Your task to perform on an android device: turn on showing notifications on the lock screen Image 0: 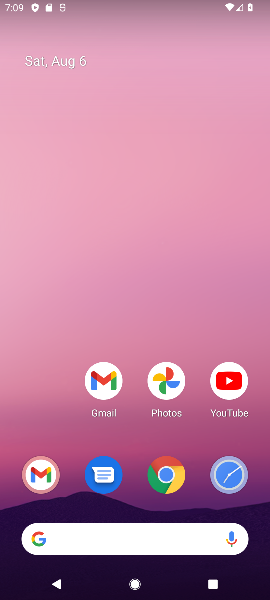
Step 0: drag from (133, 424) to (128, 85)
Your task to perform on an android device: turn on showing notifications on the lock screen Image 1: 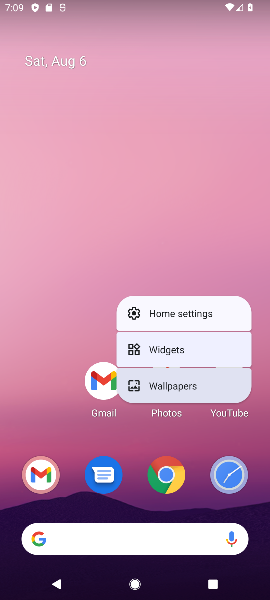
Step 1: click (128, 85)
Your task to perform on an android device: turn on showing notifications on the lock screen Image 2: 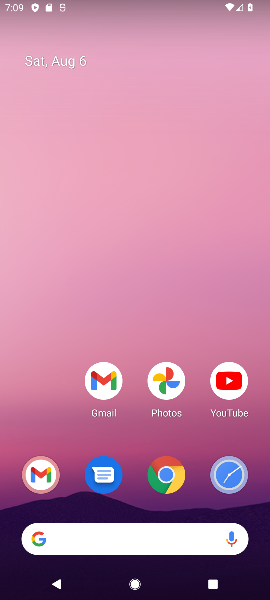
Step 2: drag from (141, 433) to (135, 10)
Your task to perform on an android device: turn on showing notifications on the lock screen Image 3: 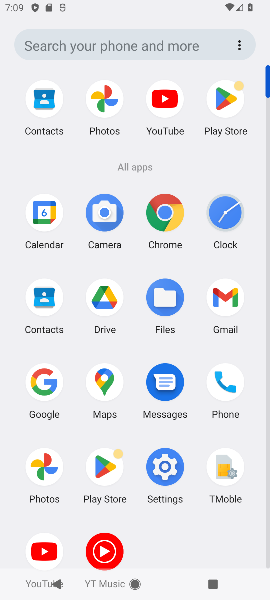
Step 3: click (163, 456)
Your task to perform on an android device: turn on showing notifications on the lock screen Image 4: 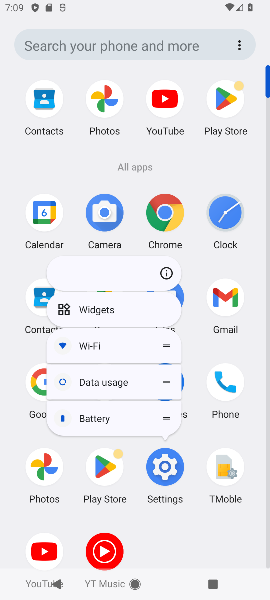
Step 4: click (170, 469)
Your task to perform on an android device: turn on showing notifications on the lock screen Image 5: 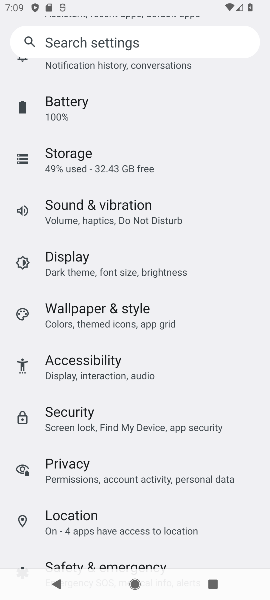
Step 5: drag from (129, 151) to (140, 320)
Your task to perform on an android device: turn on showing notifications on the lock screen Image 6: 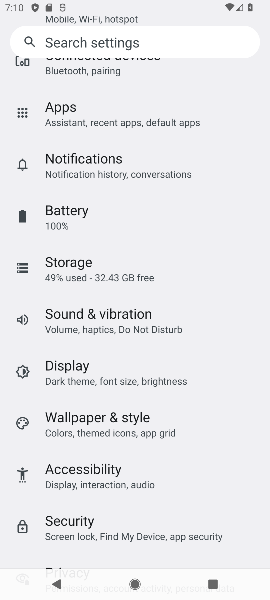
Step 6: click (137, 173)
Your task to perform on an android device: turn on showing notifications on the lock screen Image 7: 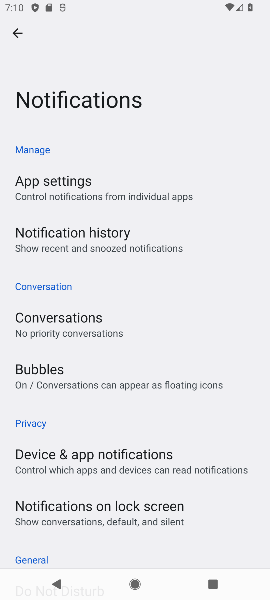
Step 7: drag from (129, 476) to (129, 352)
Your task to perform on an android device: turn on showing notifications on the lock screen Image 8: 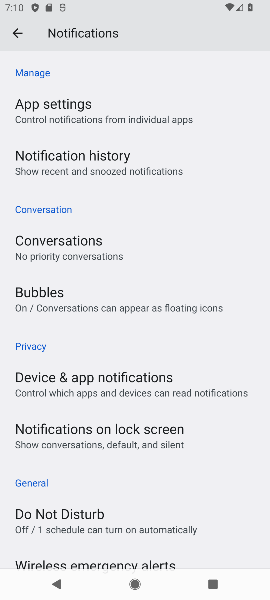
Step 8: click (119, 447)
Your task to perform on an android device: turn on showing notifications on the lock screen Image 9: 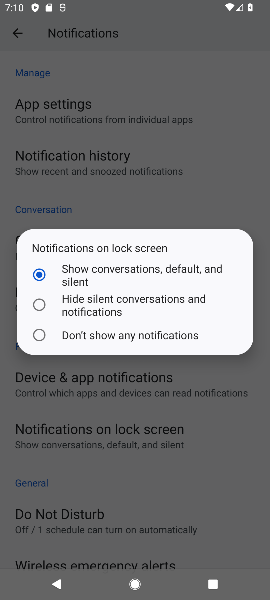
Step 9: task complete